Your task to perform on an android device: open chrome and create a bookmark for the current page Image 0: 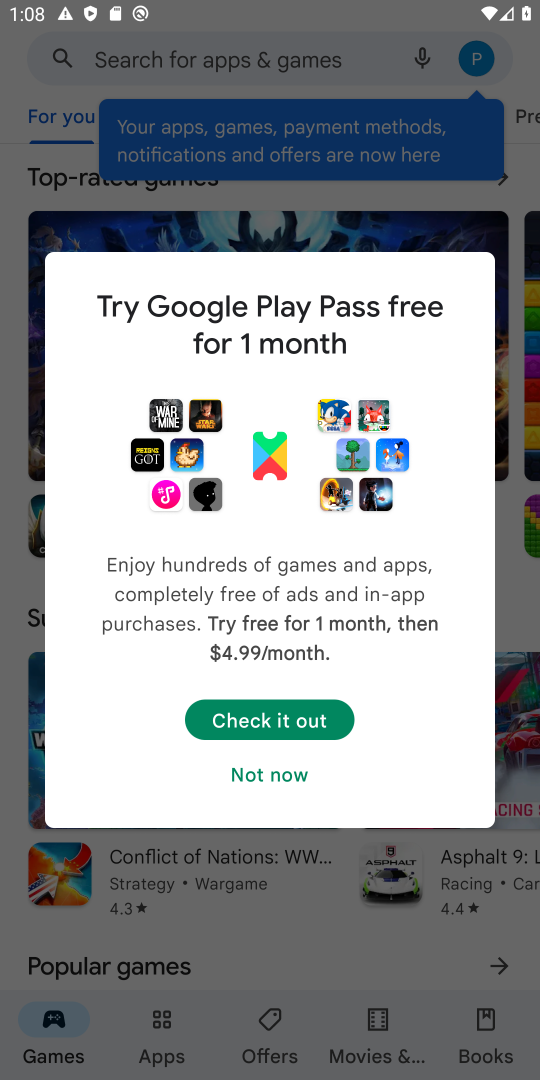
Step 0: press home button
Your task to perform on an android device: open chrome and create a bookmark for the current page Image 1: 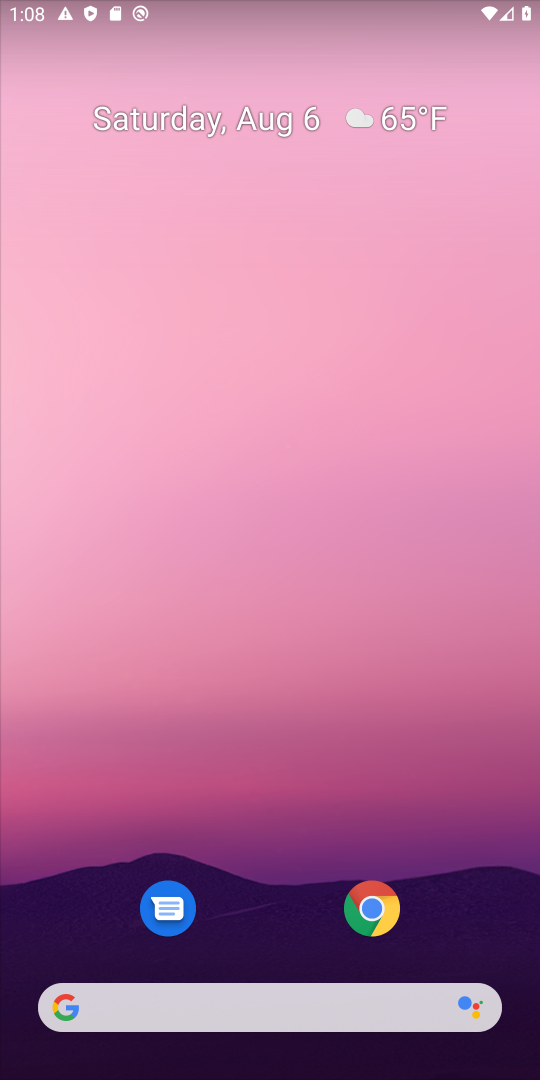
Step 1: click (367, 907)
Your task to perform on an android device: open chrome and create a bookmark for the current page Image 2: 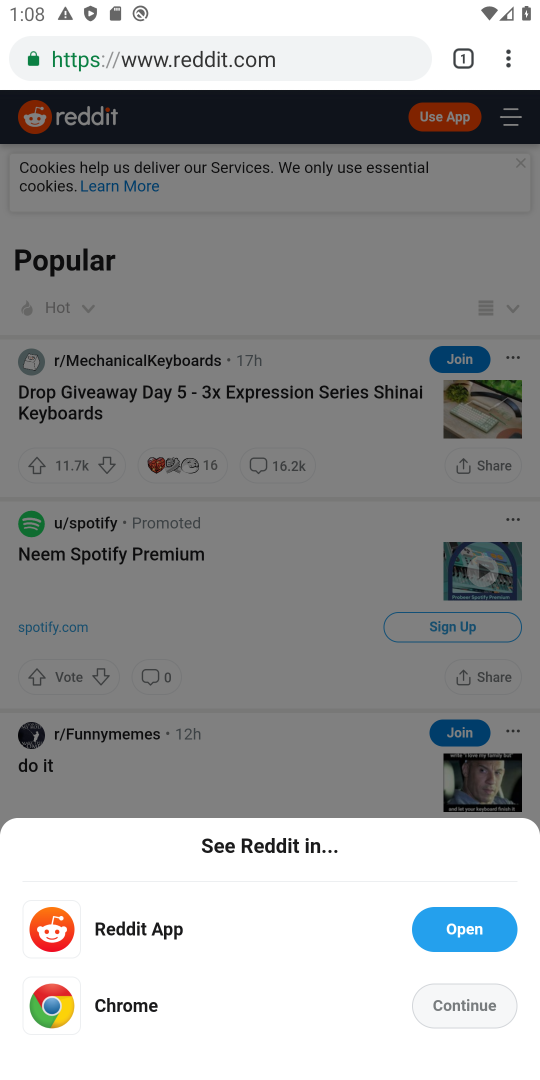
Step 2: click (510, 57)
Your task to perform on an android device: open chrome and create a bookmark for the current page Image 3: 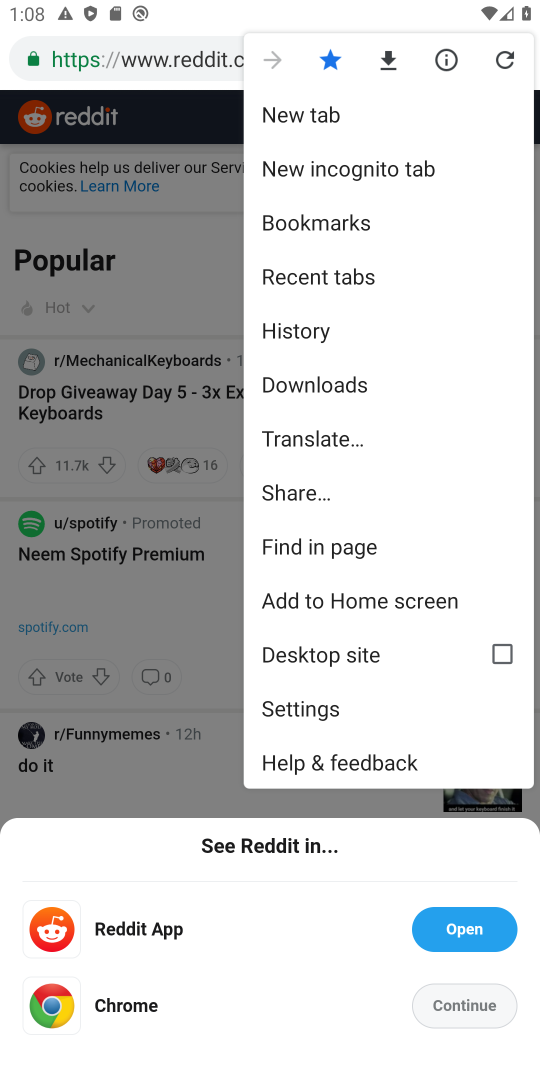
Step 3: task complete